Your task to perform on an android device: set an alarm Image 0: 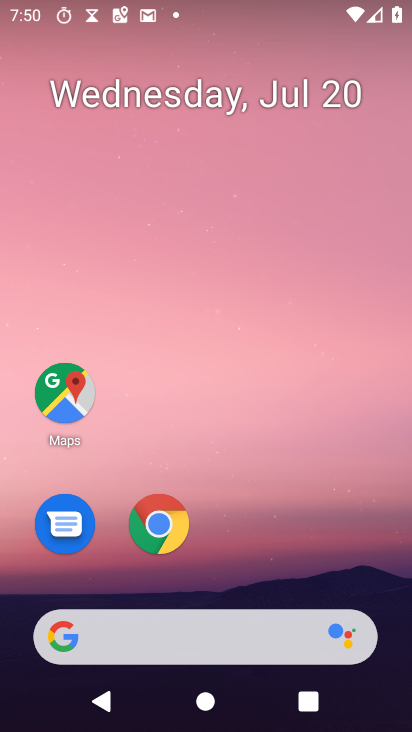
Step 0: drag from (149, 637) to (245, 154)
Your task to perform on an android device: set an alarm Image 1: 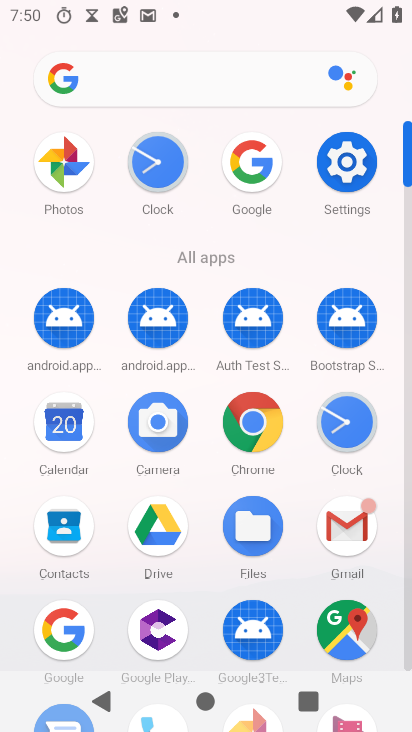
Step 1: click (160, 173)
Your task to perform on an android device: set an alarm Image 2: 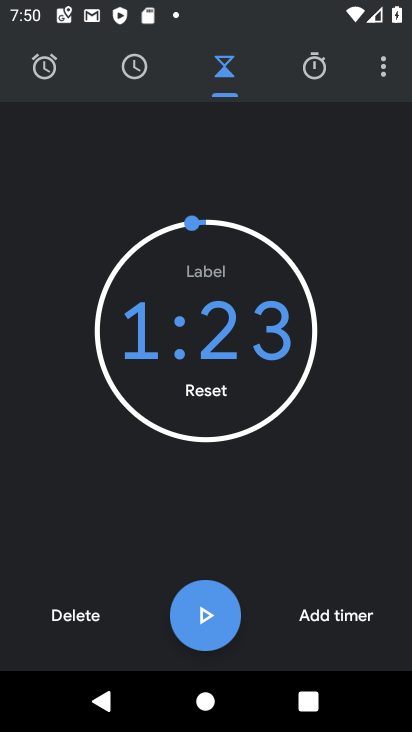
Step 2: click (51, 64)
Your task to perform on an android device: set an alarm Image 3: 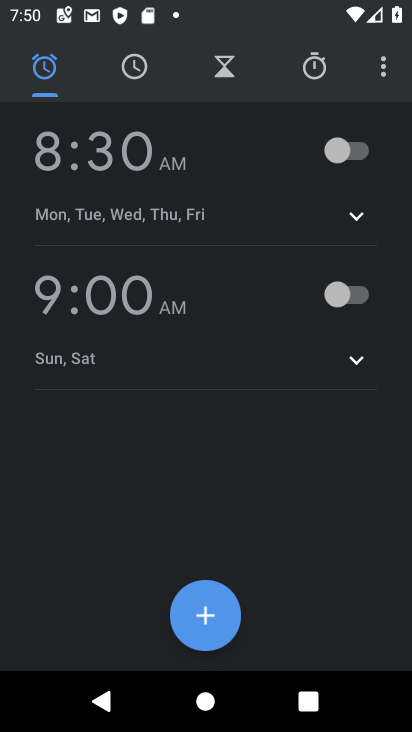
Step 3: click (361, 143)
Your task to perform on an android device: set an alarm Image 4: 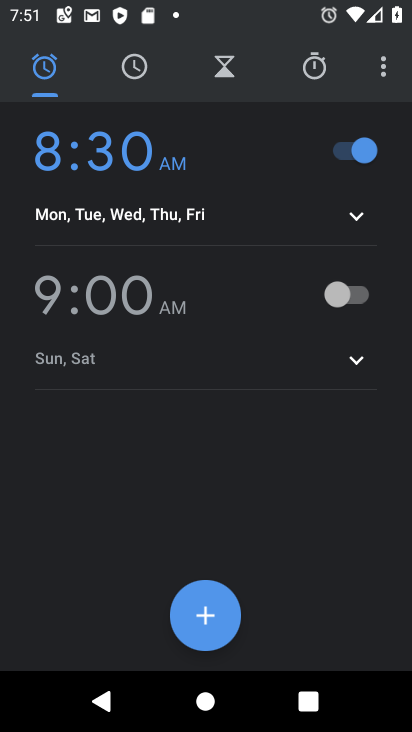
Step 4: task complete